Your task to perform on an android device: change text size in settings app Image 0: 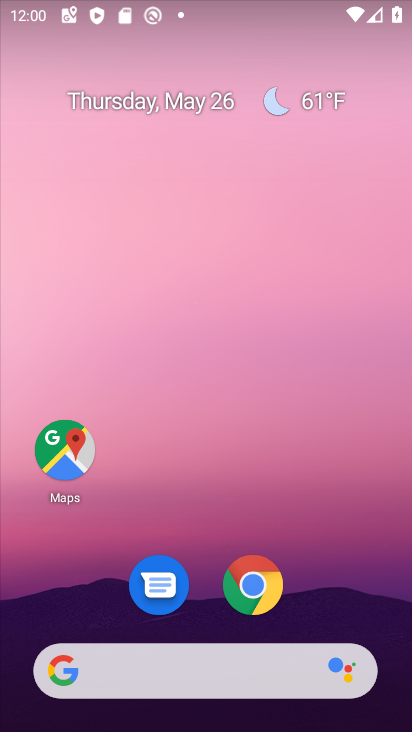
Step 0: drag from (229, 478) to (231, 46)
Your task to perform on an android device: change text size in settings app Image 1: 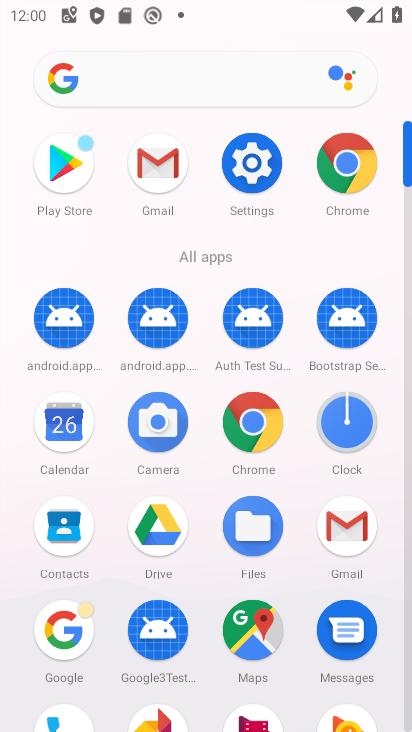
Step 1: click (244, 149)
Your task to perform on an android device: change text size in settings app Image 2: 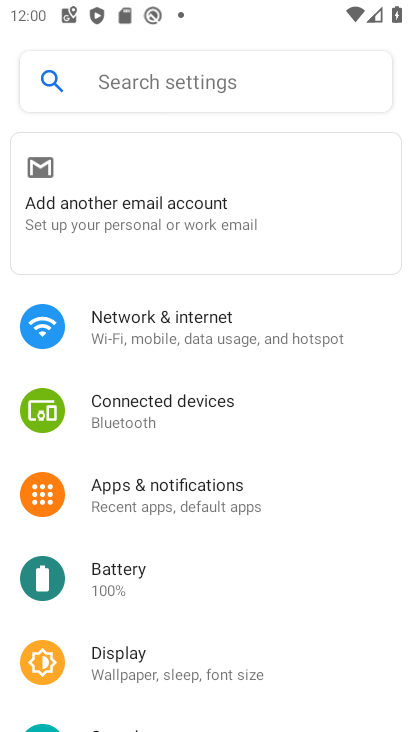
Step 2: click (190, 655)
Your task to perform on an android device: change text size in settings app Image 3: 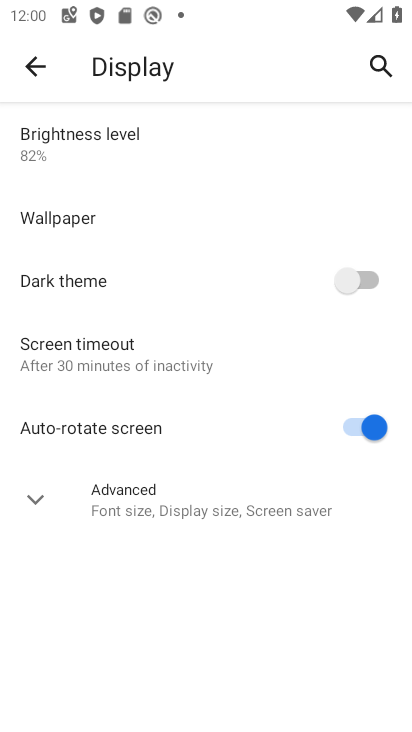
Step 3: click (33, 496)
Your task to perform on an android device: change text size in settings app Image 4: 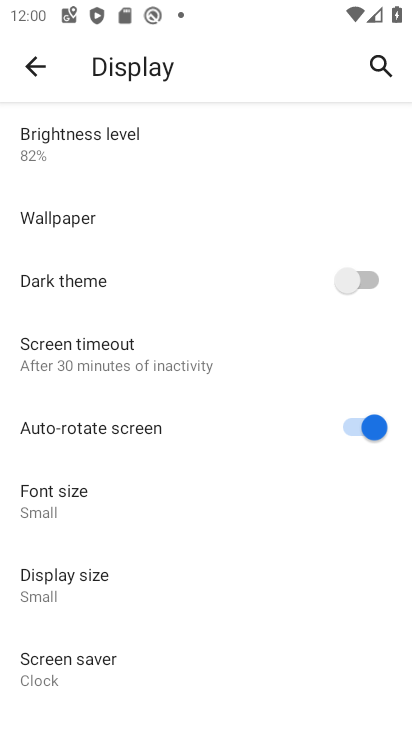
Step 4: click (36, 508)
Your task to perform on an android device: change text size in settings app Image 5: 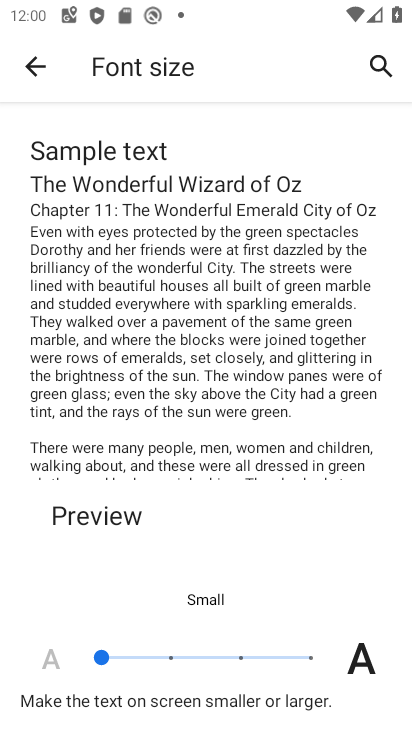
Step 5: click (160, 651)
Your task to perform on an android device: change text size in settings app Image 6: 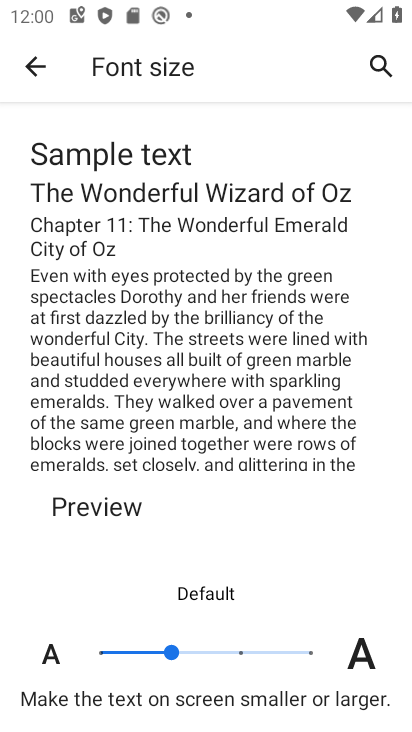
Step 6: click (33, 60)
Your task to perform on an android device: change text size in settings app Image 7: 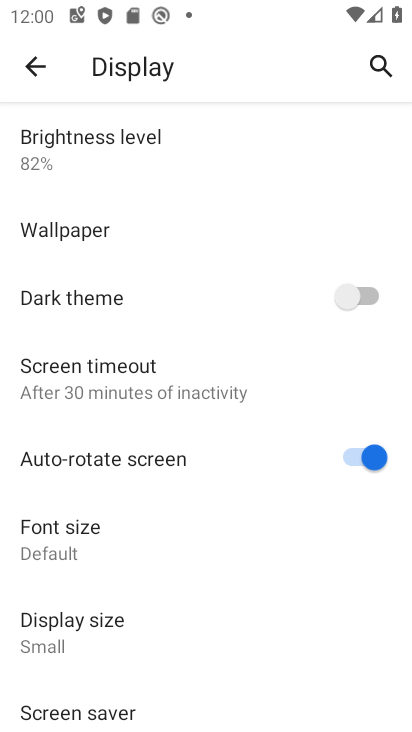
Step 7: task complete